Your task to perform on an android device: set an alarm Image 0: 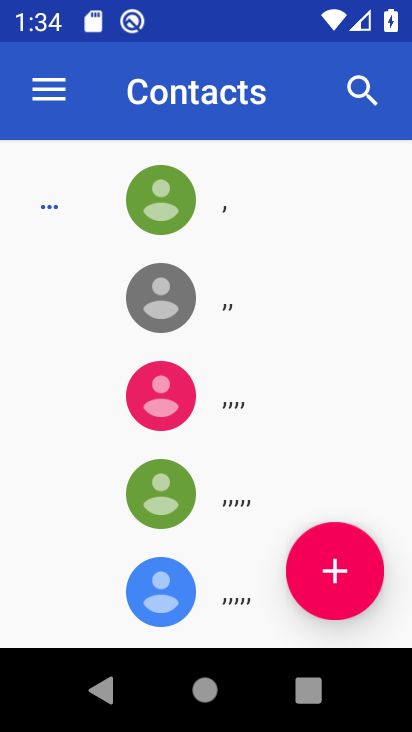
Step 0: press home button
Your task to perform on an android device: set an alarm Image 1: 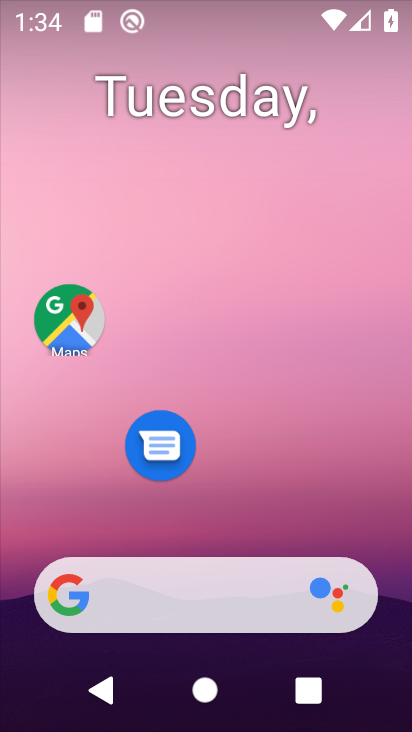
Step 1: drag from (288, 480) to (246, 280)
Your task to perform on an android device: set an alarm Image 2: 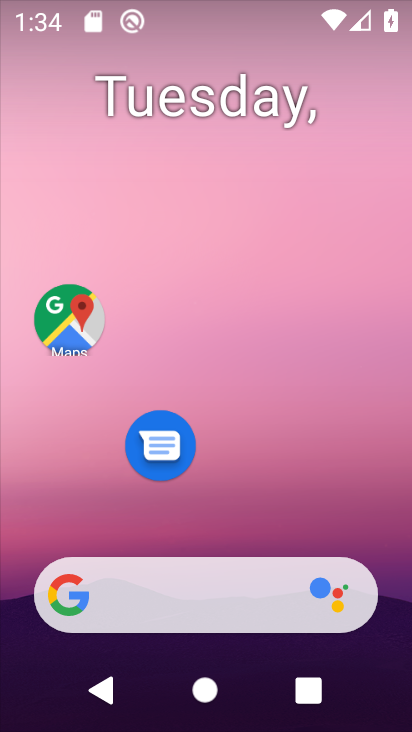
Step 2: drag from (263, 503) to (214, 118)
Your task to perform on an android device: set an alarm Image 3: 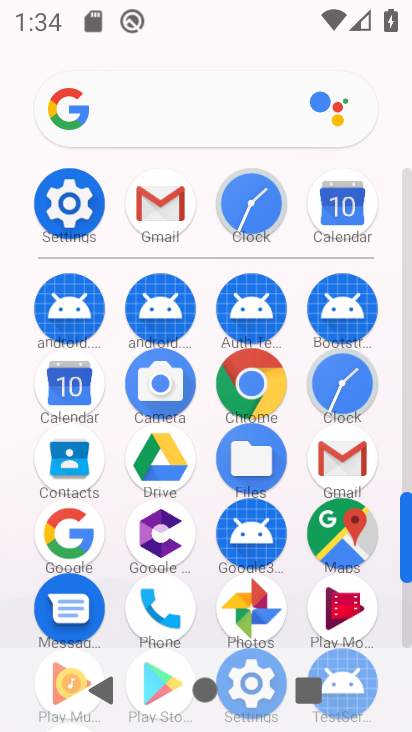
Step 3: click (261, 205)
Your task to perform on an android device: set an alarm Image 4: 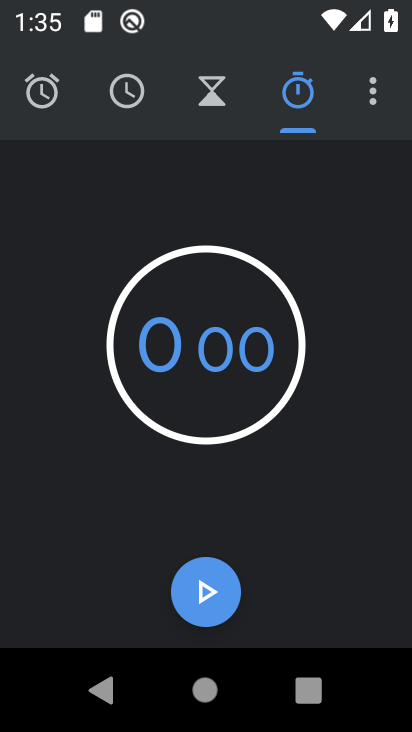
Step 4: click (46, 106)
Your task to perform on an android device: set an alarm Image 5: 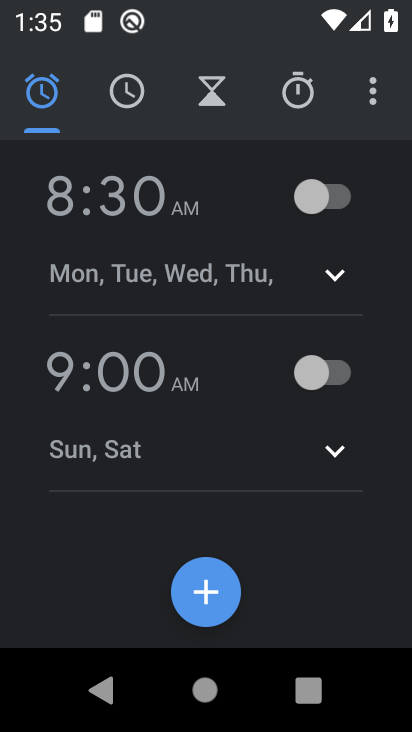
Step 5: click (196, 595)
Your task to perform on an android device: set an alarm Image 6: 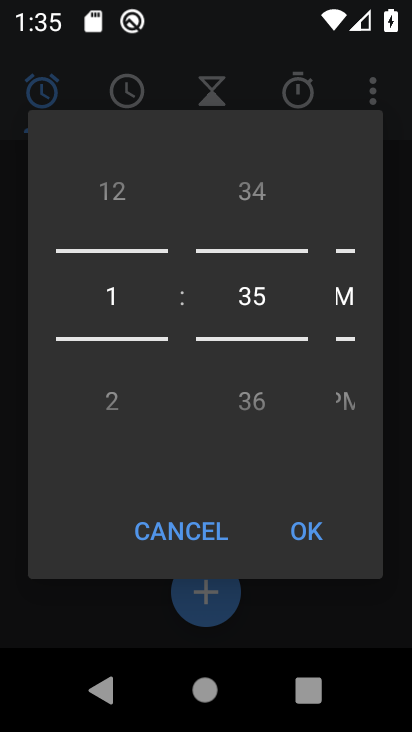
Step 6: click (307, 538)
Your task to perform on an android device: set an alarm Image 7: 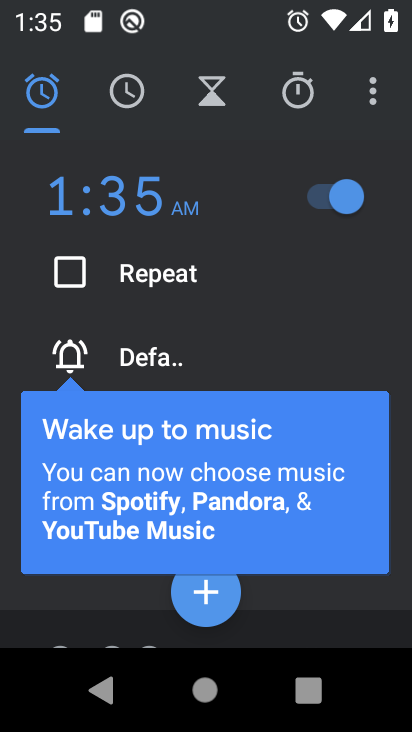
Step 7: task complete